Your task to perform on an android device: refresh tabs in the chrome app Image 0: 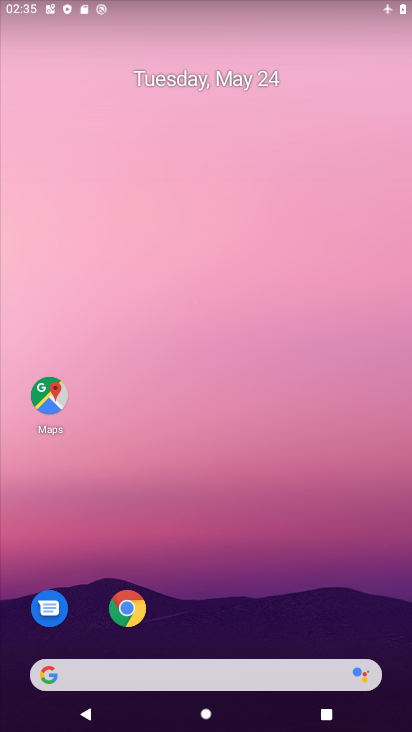
Step 0: click (142, 607)
Your task to perform on an android device: refresh tabs in the chrome app Image 1: 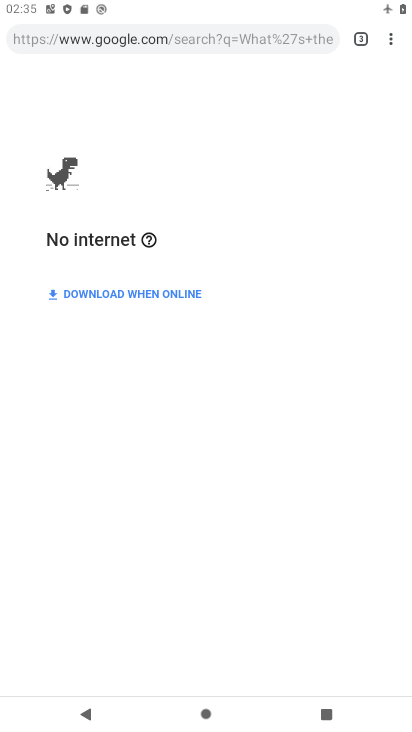
Step 1: click (395, 42)
Your task to perform on an android device: refresh tabs in the chrome app Image 2: 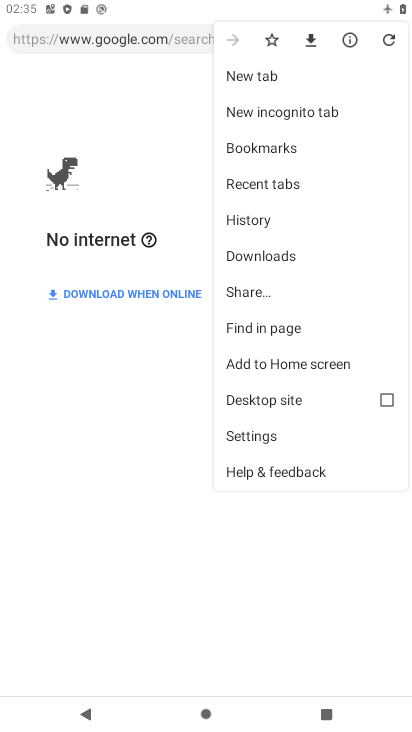
Step 2: click (395, 42)
Your task to perform on an android device: refresh tabs in the chrome app Image 3: 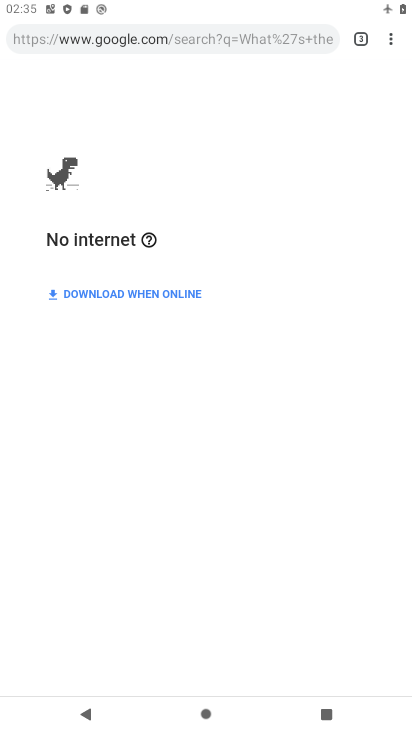
Step 3: task complete